Your task to perform on an android device: Search for Mexican restaurants on Maps Image 0: 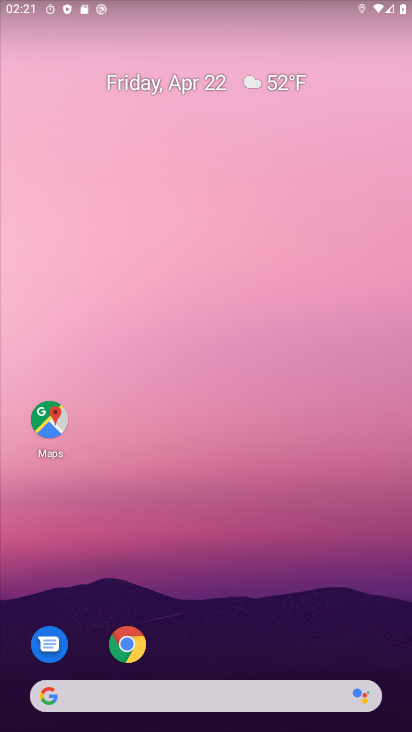
Step 0: drag from (278, 413) to (251, 240)
Your task to perform on an android device: Search for Mexican restaurants on Maps Image 1: 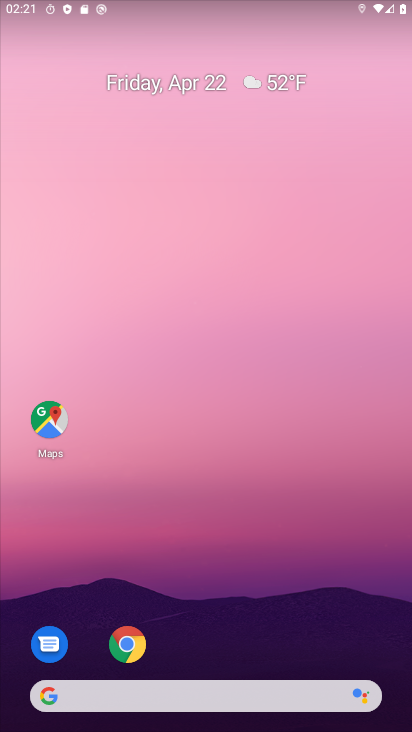
Step 1: drag from (268, 590) to (194, 184)
Your task to perform on an android device: Search for Mexican restaurants on Maps Image 2: 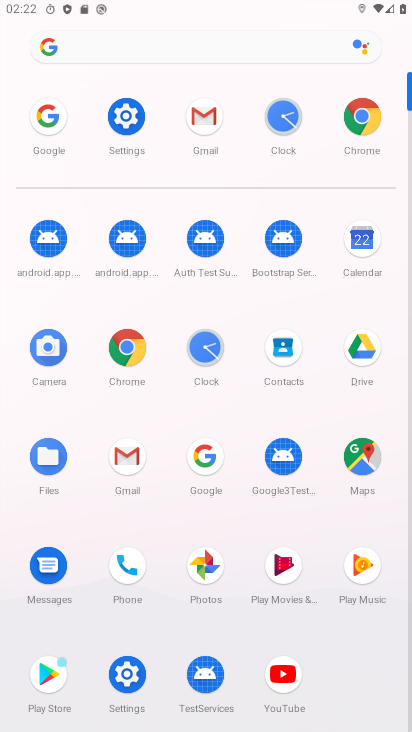
Step 2: click (358, 464)
Your task to perform on an android device: Search for Mexican restaurants on Maps Image 3: 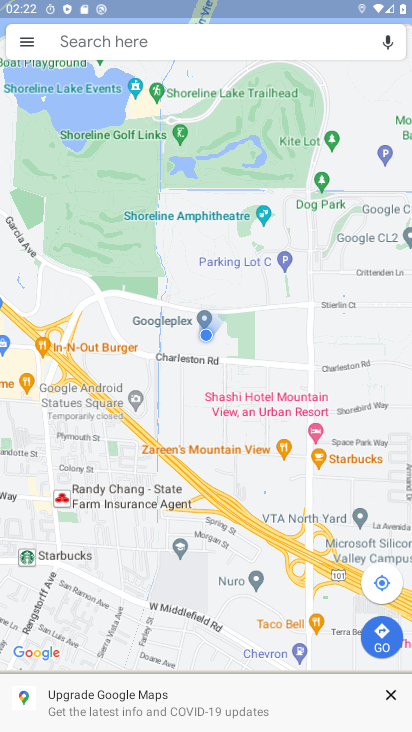
Step 3: click (186, 38)
Your task to perform on an android device: Search for Mexican restaurants on Maps Image 4: 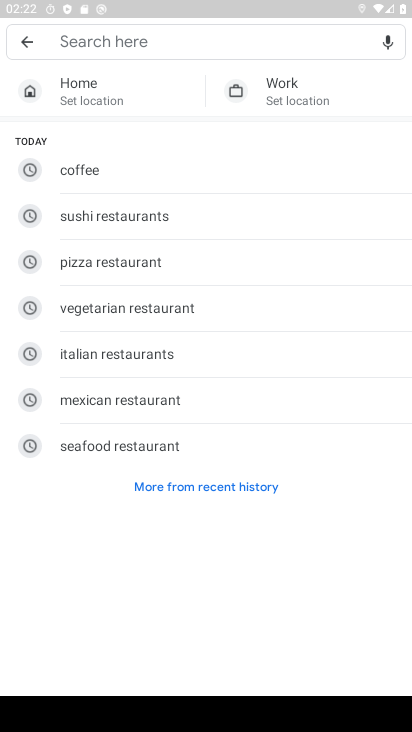
Step 4: click (110, 409)
Your task to perform on an android device: Search for Mexican restaurants on Maps Image 5: 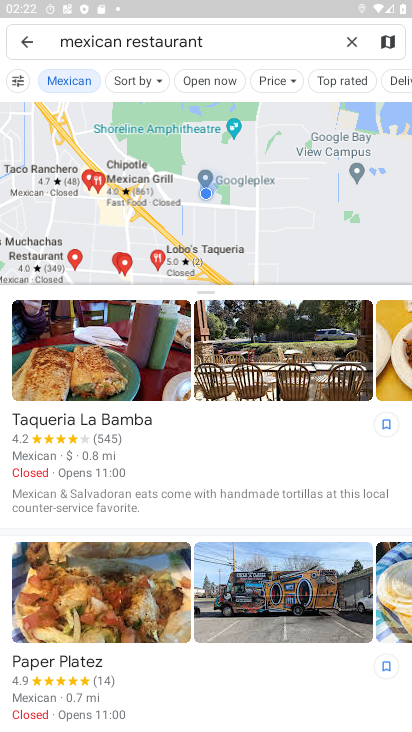
Step 5: task complete